Your task to perform on an android device: Open battery settings Image 0: 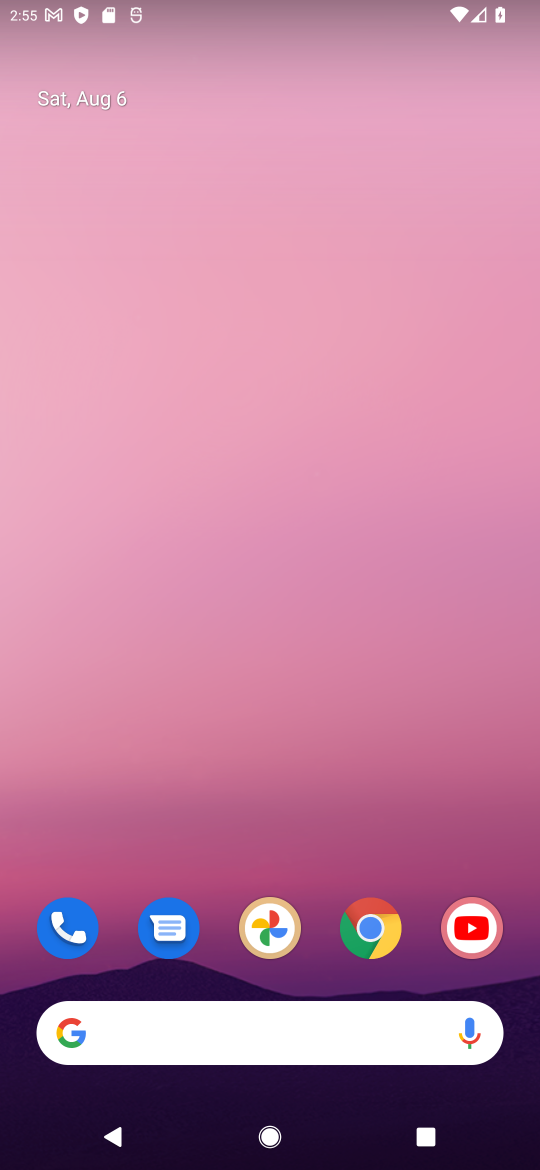
Step 0: drag from (260, 807) to (412, 191)
Your task to perform on an android device: Open battery settings Image 1: 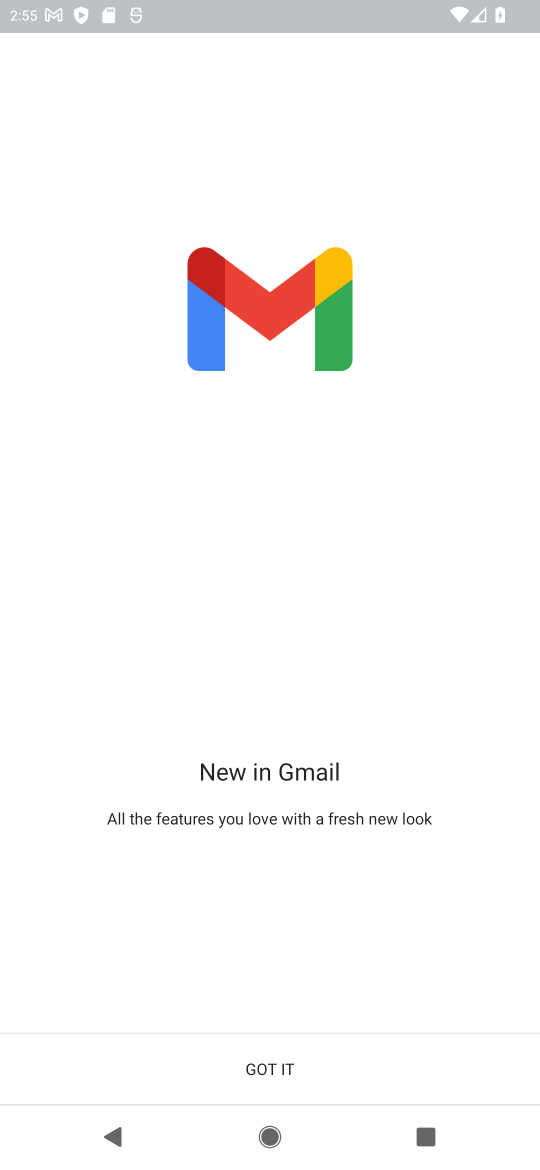
Step 1: drag from (284, 961) to (367, 505)
Your task to perform on an android device: Open battery settings Image 2: 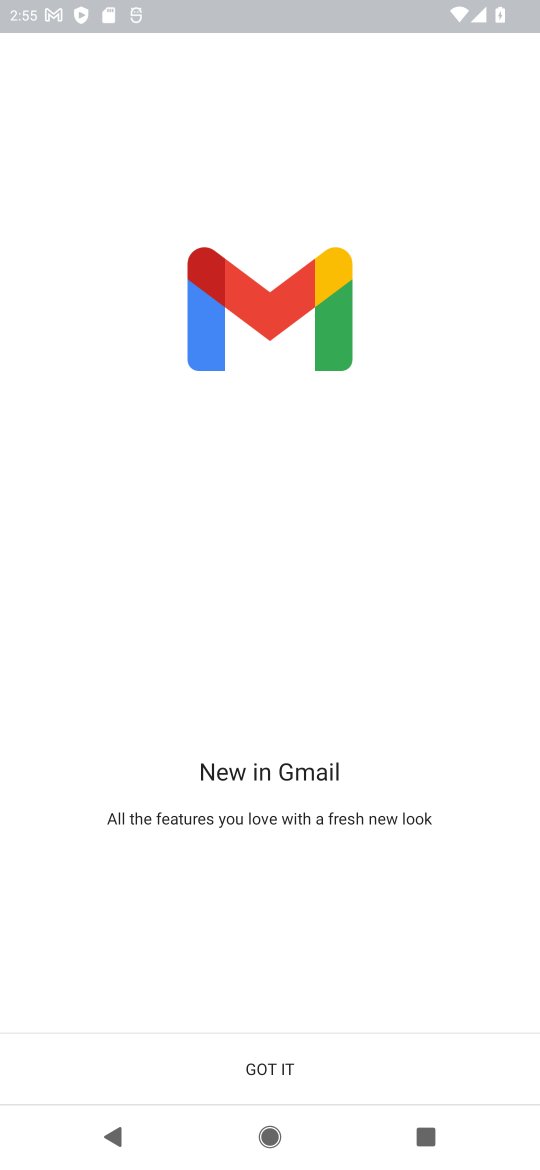
Step 2: drag from (199, 944) to (403, 535)
Your task to perform on an android device: Open battery settings Image 3: 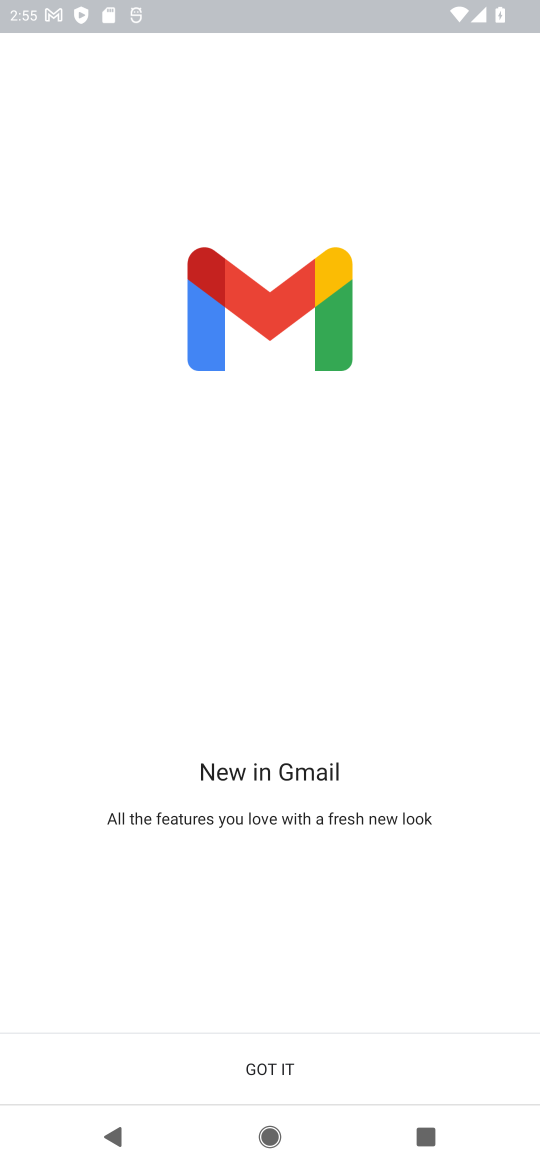
Step 3: press home button
Your task to perform on an android device: Open battery settings Image 4: 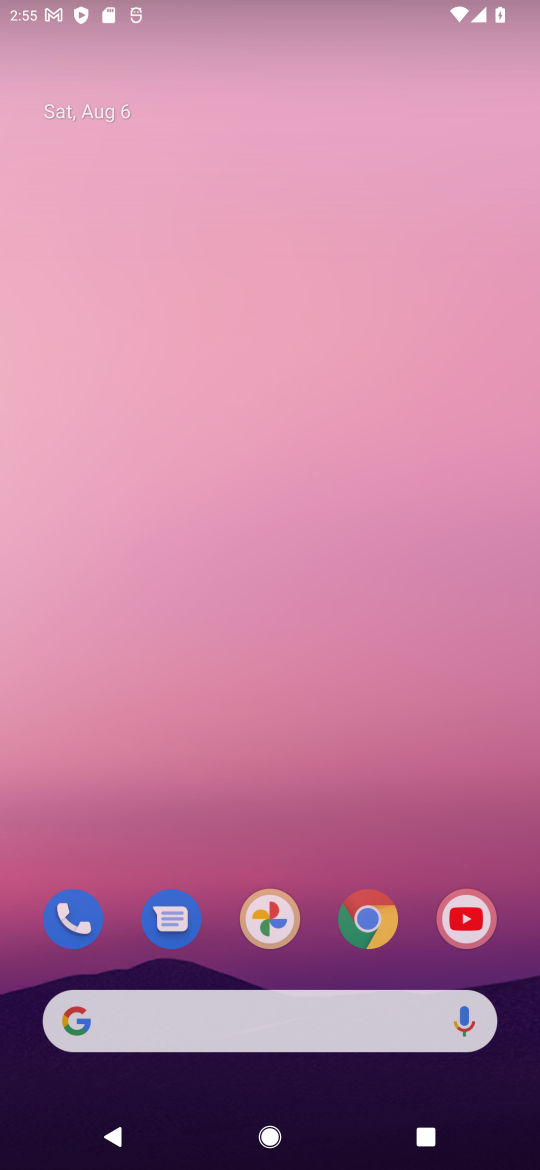
Step 4: drag from (304, 809) to (453, 311)
Your task to perform on an android device: Open battery settings Image 5: 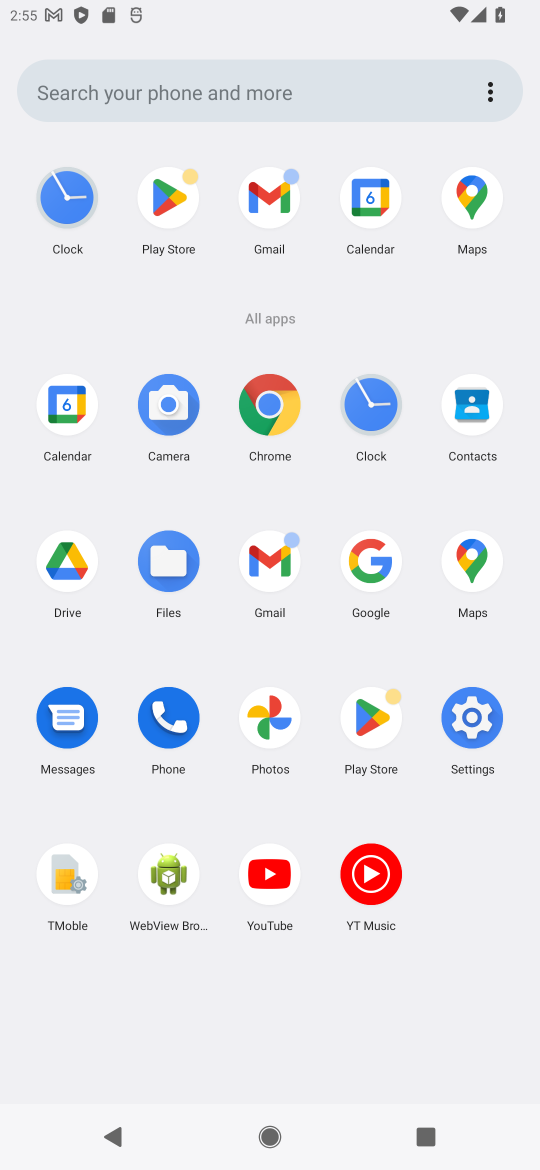
Step 5: click (450, 698)
Your task to perform on an android device: Open battery settings Image 6: 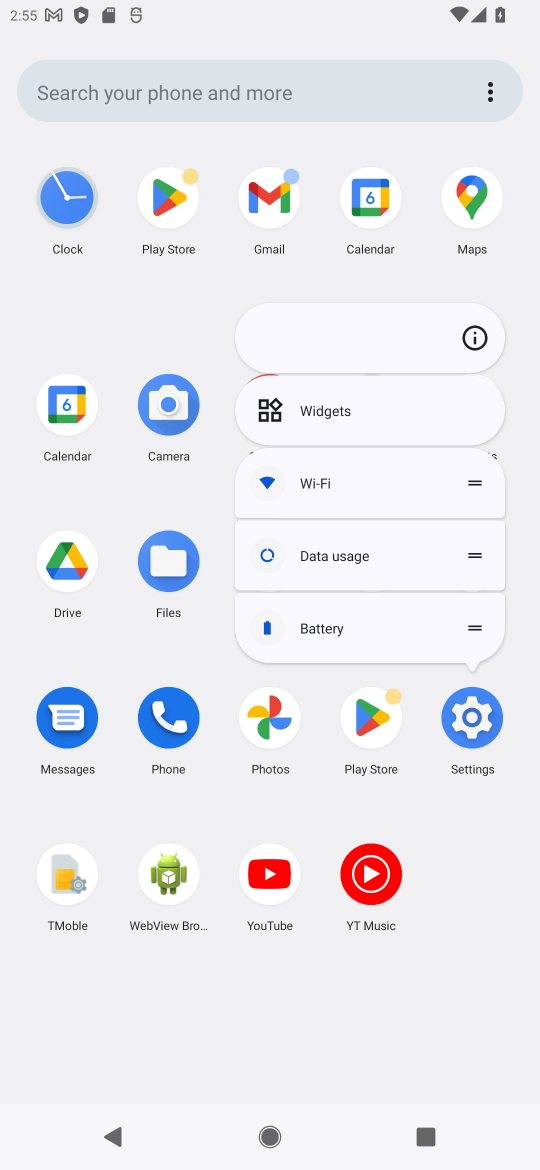
Step 6: click (472, 335)
Your task to perform on an android device: Open battery settings Image 7: 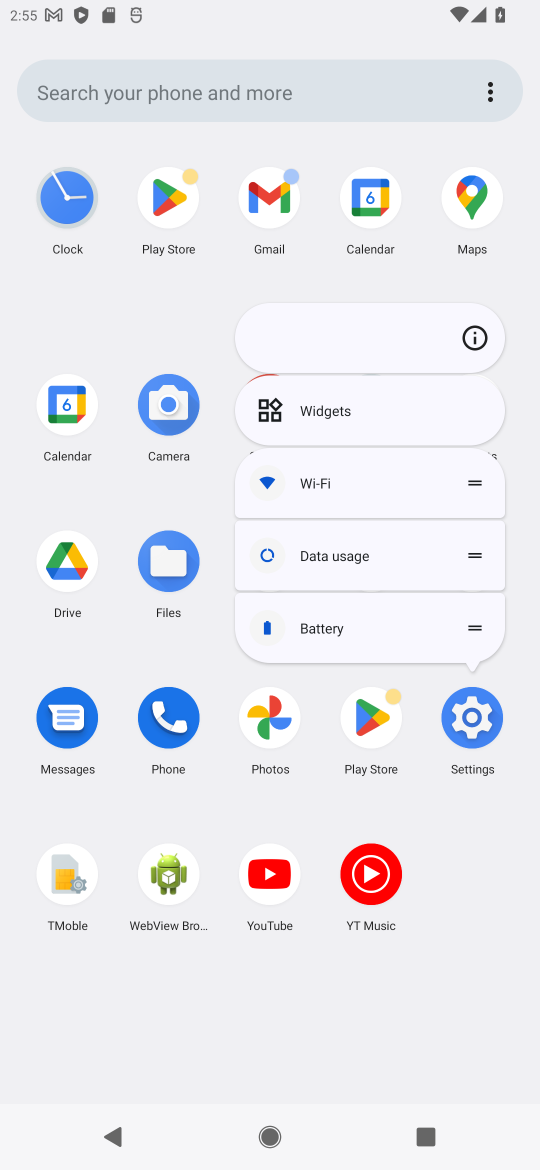
Step 7: click (473, 327)
Your task to perform on an android device: Open battery settings Image 8: 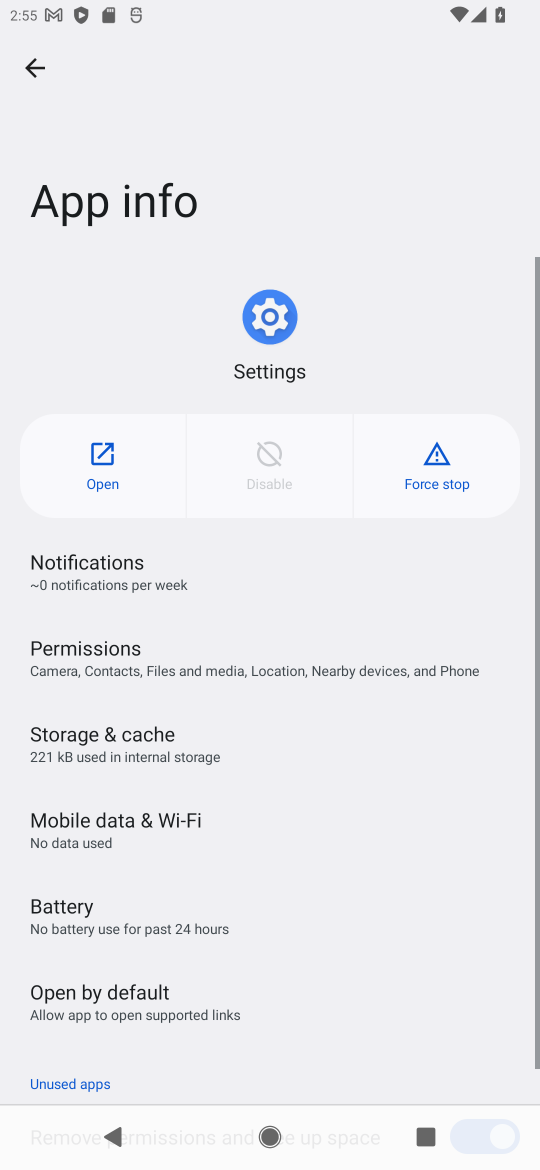
Step 8: click (89, 463)
Your task to perform on an android device: Open battery settings Image 9: 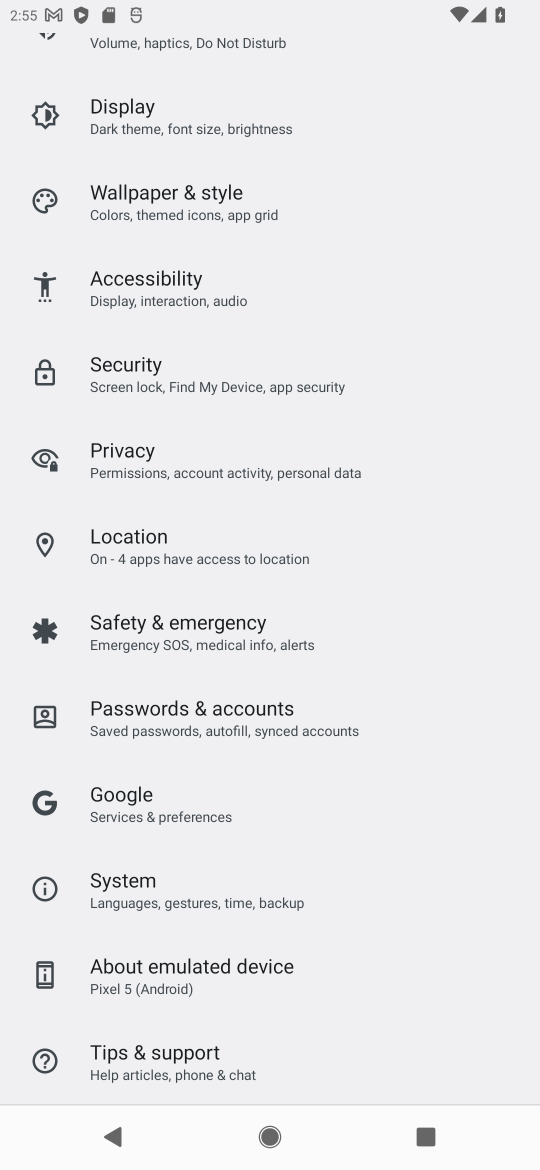
Step 9: drag from (241, 384) to (339, 1105)
Your task to perform on an android device: Open battery settings Image 10: 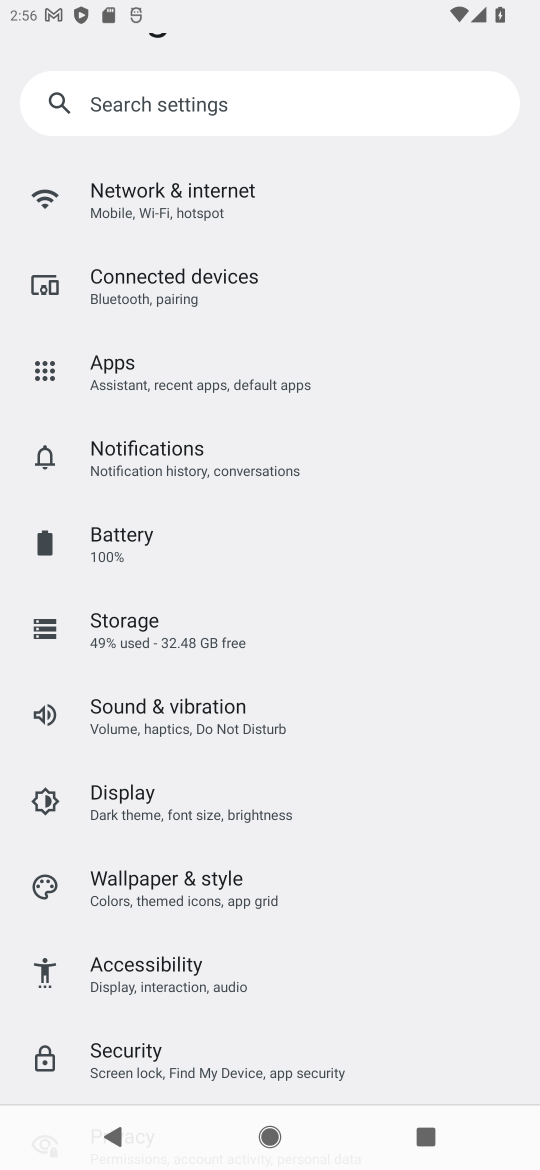
Step 10: click (217, 560)
Your task to perform on an android device: Open battery settings Image 11: 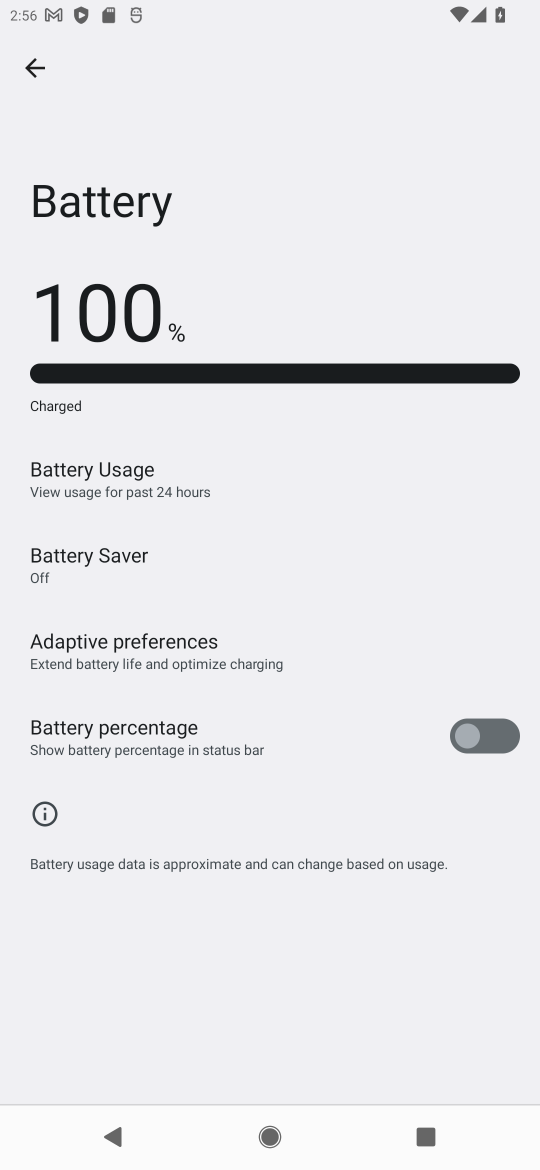
Step 11: task complete